Your task to perform on an android device: check data usage Image 0: 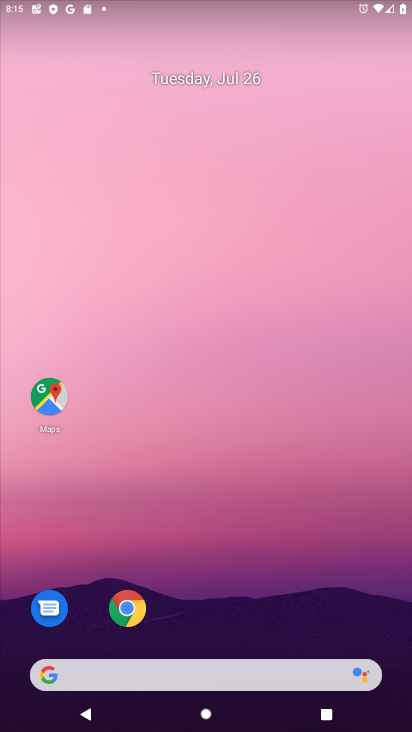
Step 0: drag from (227, 452) to (224, 174)
Your task to perform on an android device: check data usage Image 1: 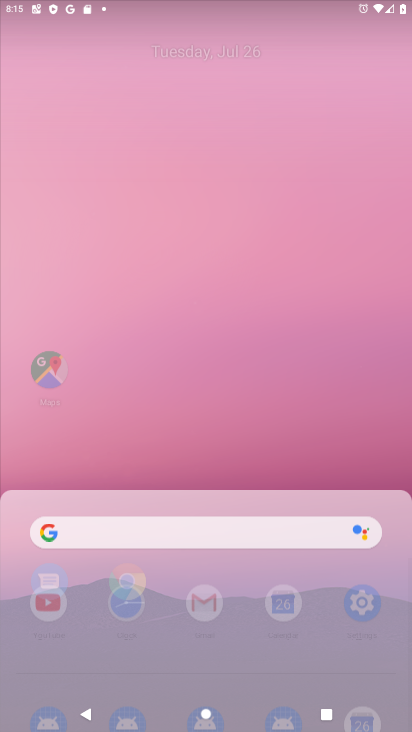
Step 1: drag from (257, 512) to (229, 302)
Your task to perform on an android device: check data usage Image 2: 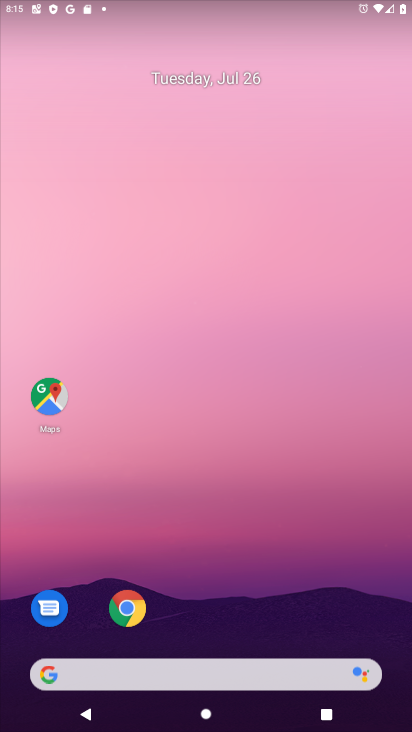
Step 2: drag from (212, 305) to (205, 53)
Your task to perform on an android device: check data usage Image 3: 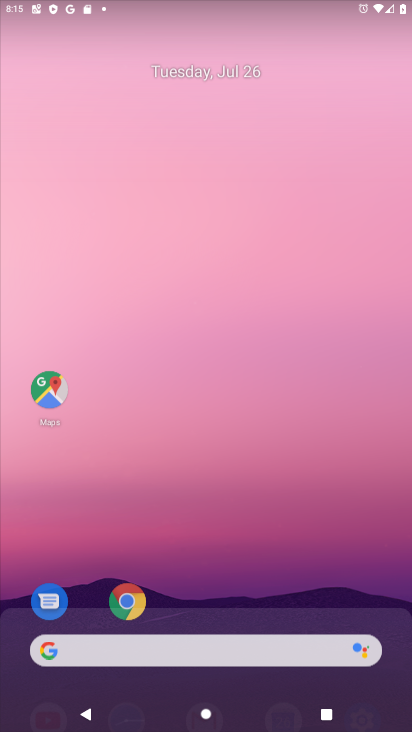
Step 3: drag from (254, 525) to (250, 5)
Your task to perform on an android device: check data usage Image 4: 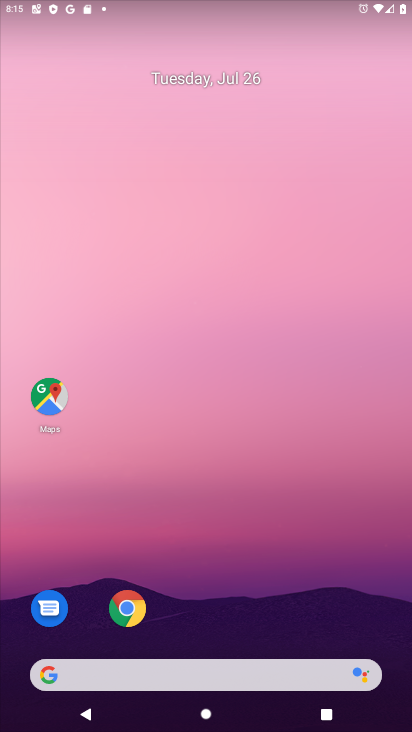
Step 4: drag from (323, 549) to (217, 53)
Your task to perform on an android device: check data usage Image 5: 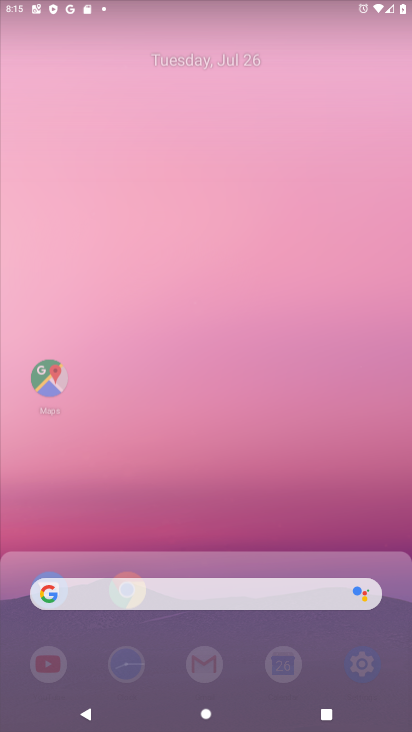
Step 5: drag from (246, 573) to (247, 150)
Your task to perform on an android device: check data usage Image 6: 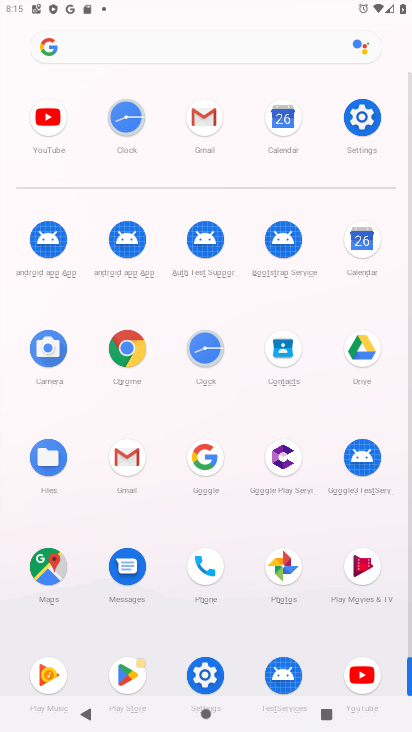
Step 6: drag from (290, 619) to (224, 208)
Your task to perform on an android device: check data usage Image 7: 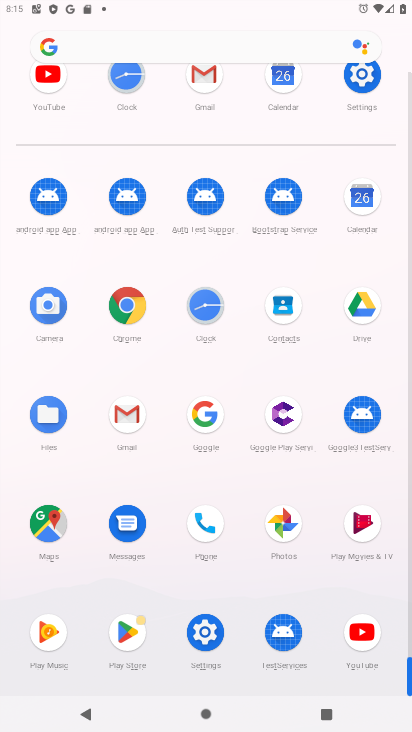
Step 7: click (372, 76)
Your task to perform on an android device: check data usage Image 8: 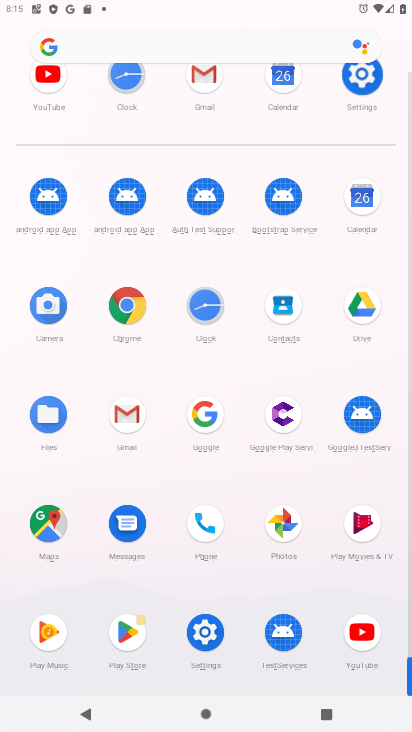
Step 8: click (371, 76)
Your task to perform on an android device: check data usage Image 9: 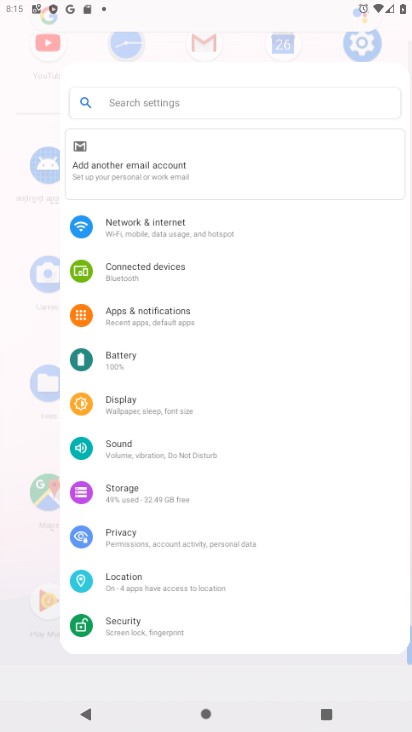
Step 9: click (371, 76)
Your task to perform on an android device: check data usage Image 10: 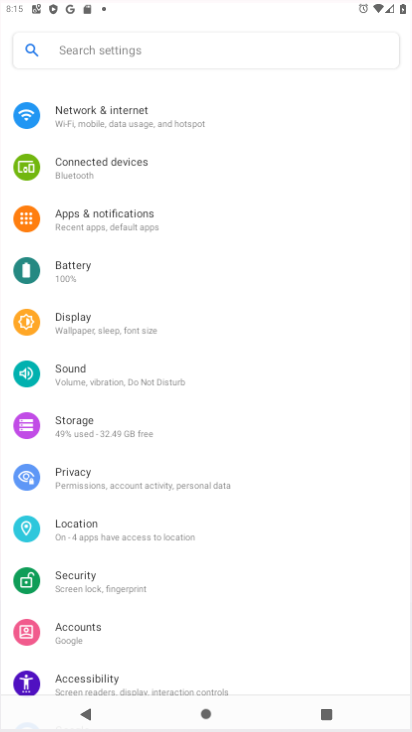
Step 10: click (371, 76)
Your task to perform on an android device: check data usage Image 11: 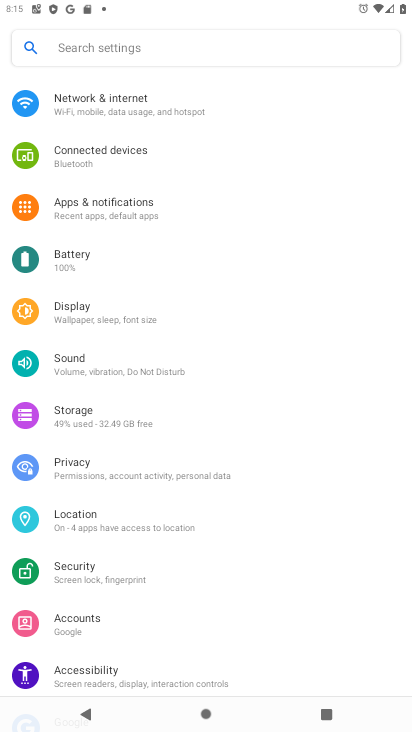
Step 11: click (371, 76)
Your task to perform on an android device: check data usage Image 12: 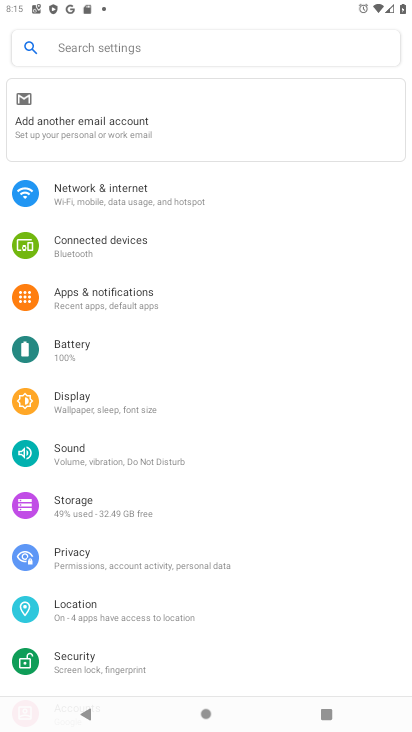
Step 12: click (91, 190)
Your task to perform on an android device: check data usage Image 13: 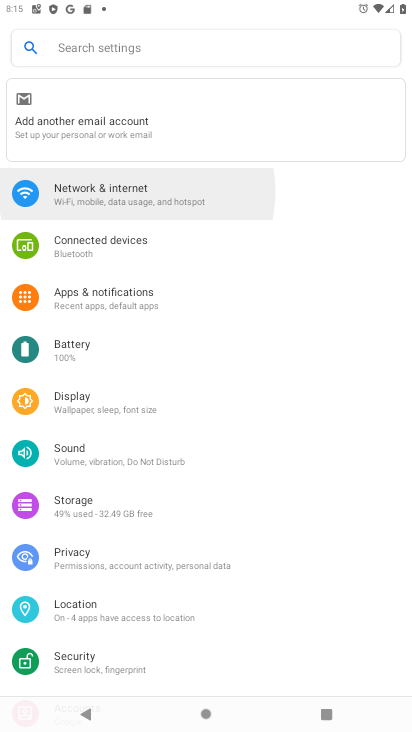
Step 13: click (92, 190)
Your task to perform on an android device: check data usage Image 14: 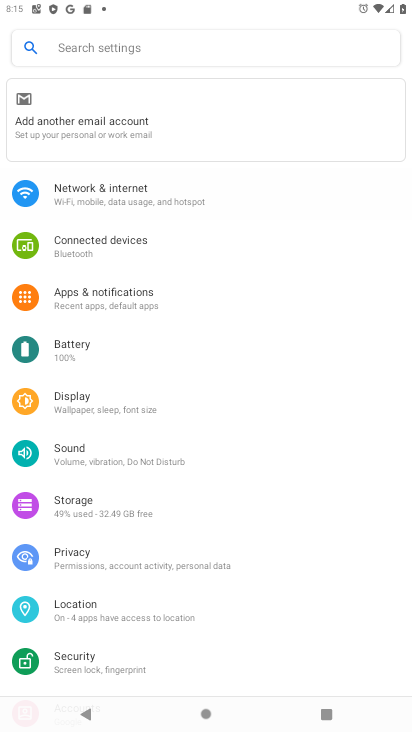
Step 14: click (93, 191)
Your task to perform on an android device: check data usage Image 15: 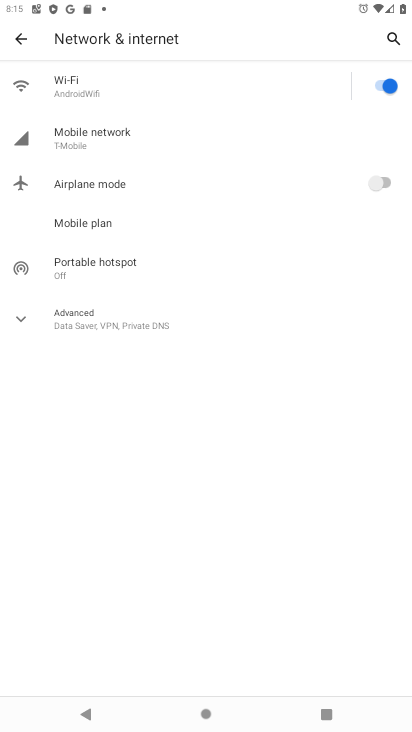
Step 15: click (75, 138)
Your task to perform on an android device: check data usage Image 16: 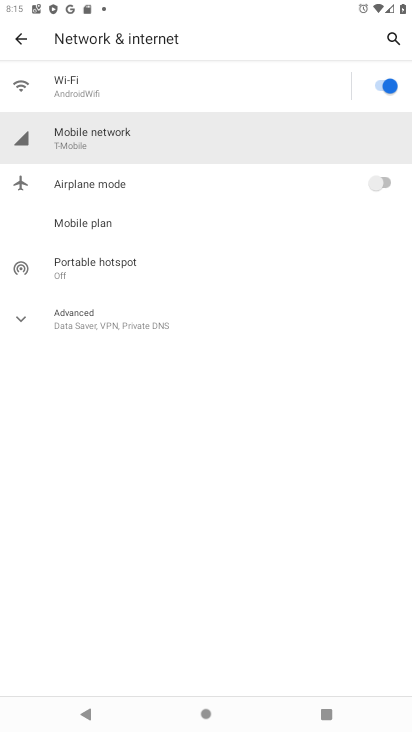
Step 16: click (76, 137)
Your task to perform on an android device: check data usage Image 17: 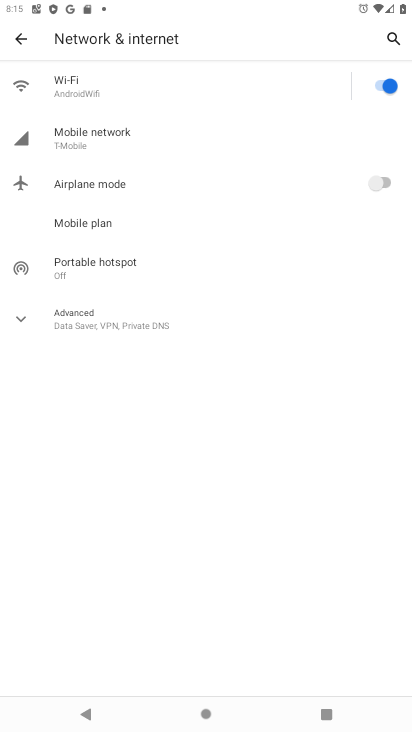
Step 17: click (76, 137)
Your task to perform on an android device: check data usage Image 18: 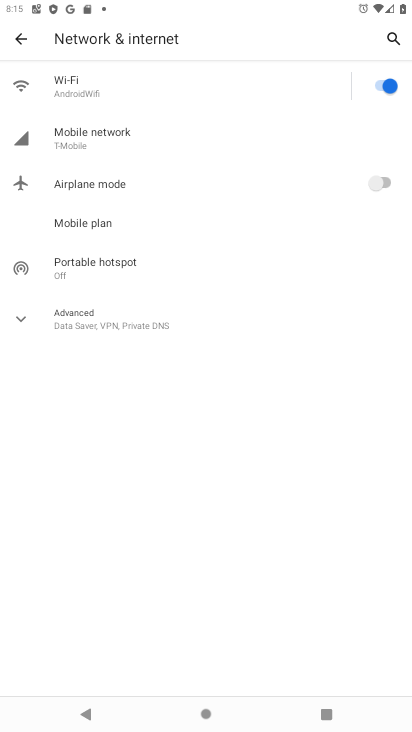
Step 18: click (76, 137)
Your task to perform on an android device: check data usage Image 19: 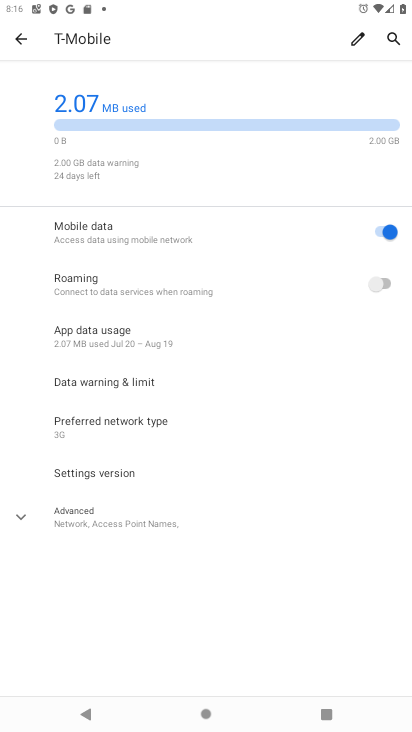
Step 19: task complete